Your task to perform on an android device: check storage Image 0: 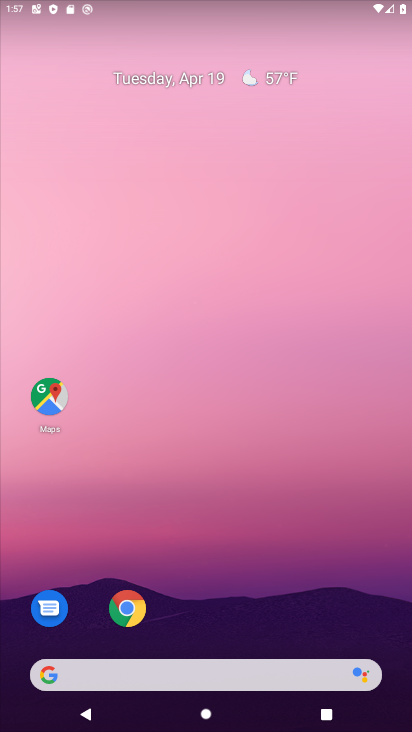
Step 0: drag from (214, 662) to (254, 198)
Your task to perform on an android device: check storage Image 1: 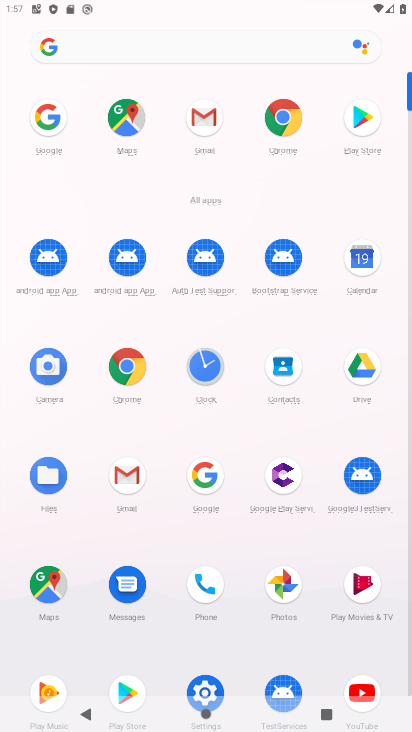
Step 1: click (202, 689)
Your task to perform on an android device: check storage Image 2: 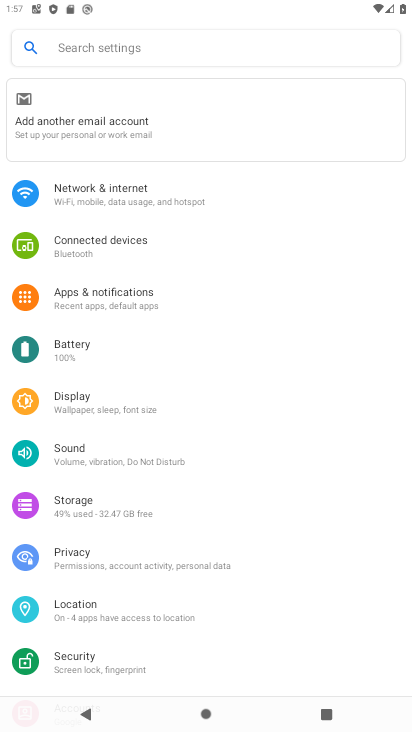
Step 2: click (82, 500)
Your task to perform on an android device: check storage Image 3: 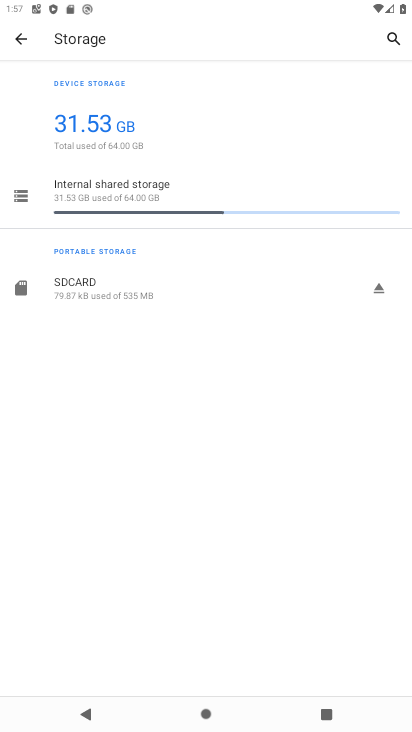
Step 3: task complete